Your task to perform on an android device: Open Youtube and go to "Your channel" Image 0: 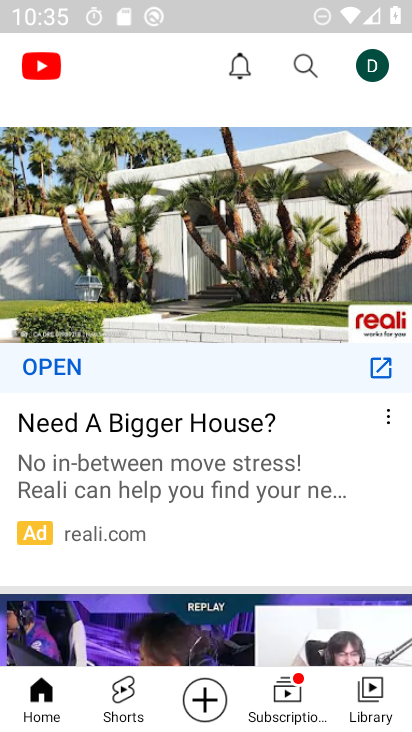
Step 0: drag from (293, 547) to (274, 242)
Your task to perform on an android device: Open Youtube and go to "Your channel" Image 1: 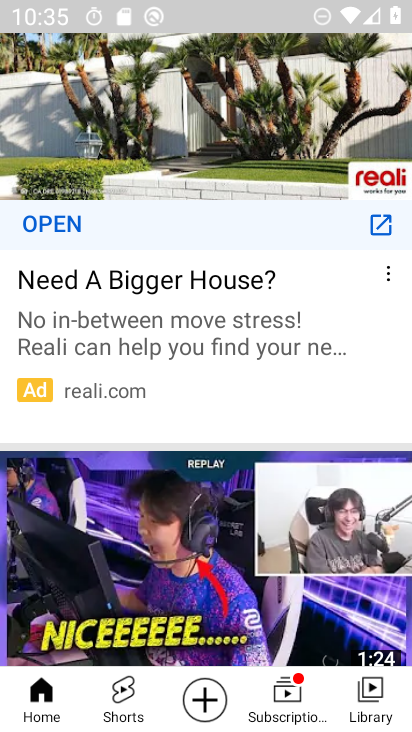
Step 1: drag from (309, 172) to (287, 449)
Your task to perform on an android device: Open Youtube and go to "Your channel" Image 2: 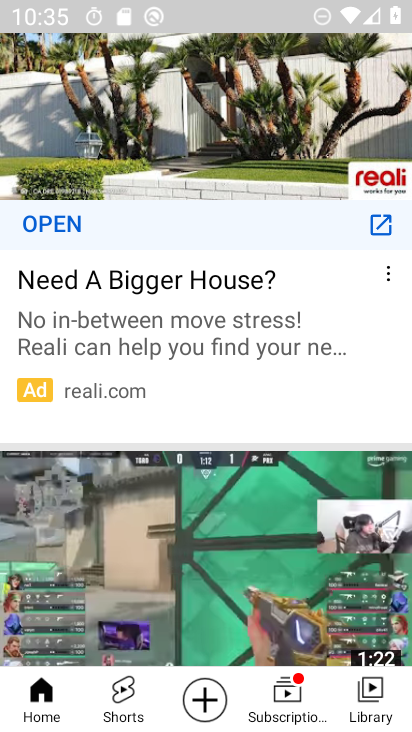
Step 2: drag from (256, 145) to (220, 501)
Your task to perform on an android device: Open Youtube and go to "Your channel" Image 3: 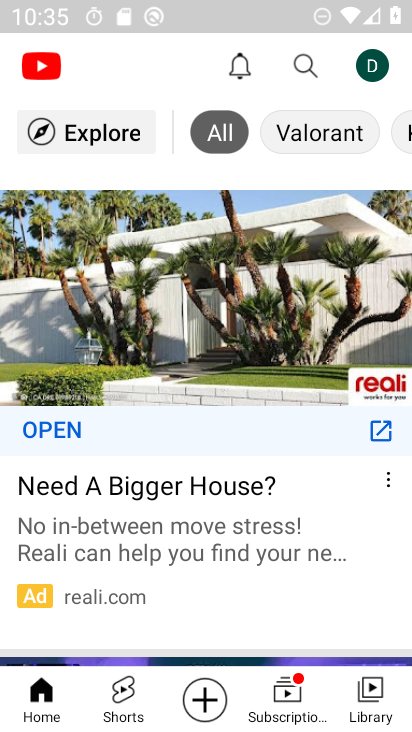
Step 3: click (379, 56)
Your task to perform on an android device: Open Youtube and go to "Your channel" Image 4: 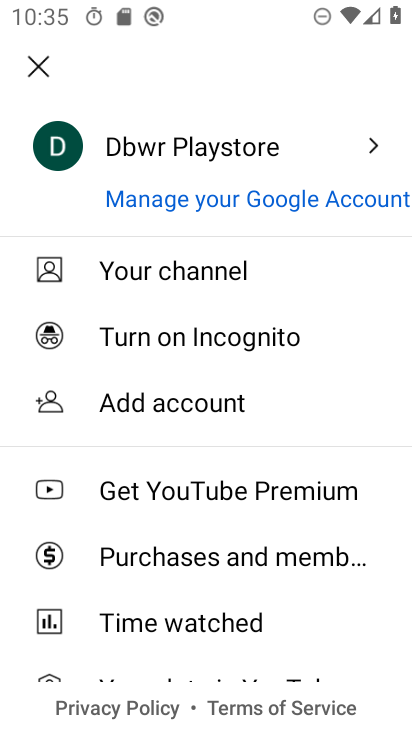
Step 4: drag from (219, 550) to (266, 193)
Your task to perform on an android device: Open Youtube and go to "Your channel" Image 5: 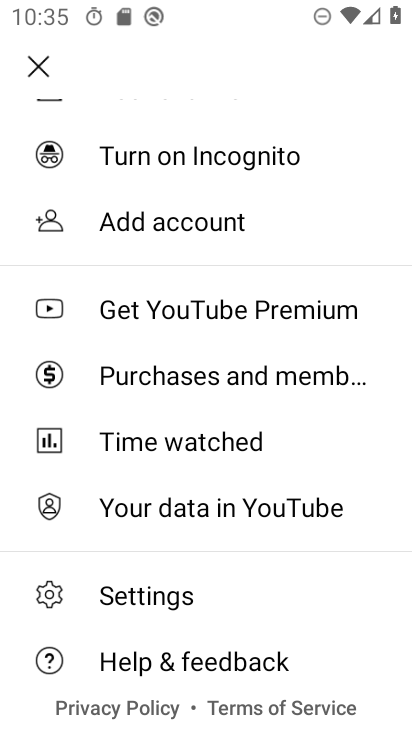
Step 5: drag from (209, 609) to (316, 174)
Your task to perform on an android device: Open Youtube and go to "Your channel" Image 6: 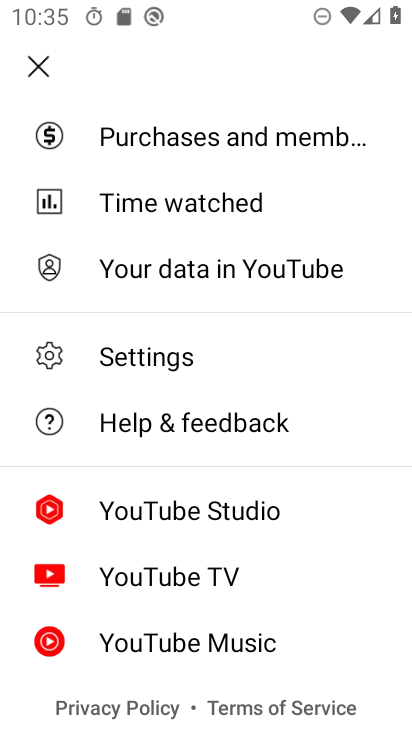
Step 6: drag from (224, 584) to (255, 171)
Your task to perform on an android device: Open Youtube and go to "Your channel" Image 7: 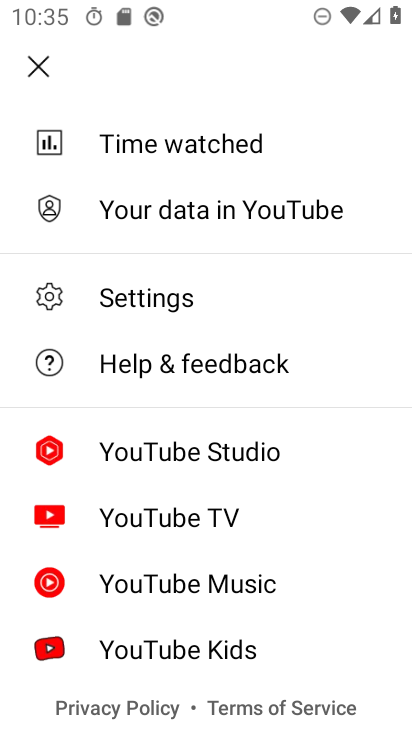
Step 7: drag from (181, 645) to (201, 267)
Your task to perform on an android device: Open Youtube and go to "Your channel" Image 8: 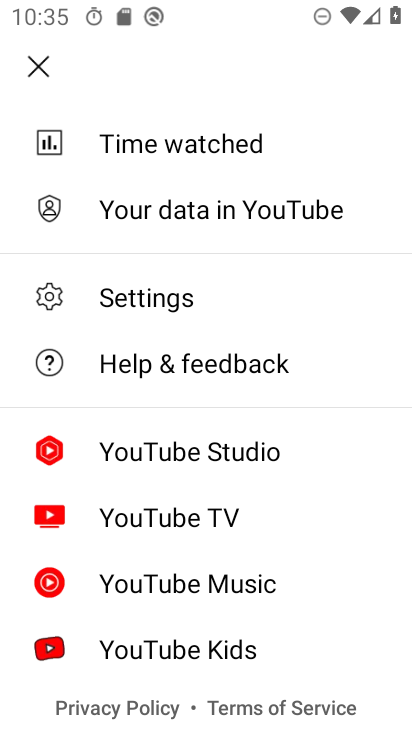
Step 8: drag from (213, 561) to (270, 344)
Your task to perform on an android device: Open Youtube and go to "Your channel" Image 9: 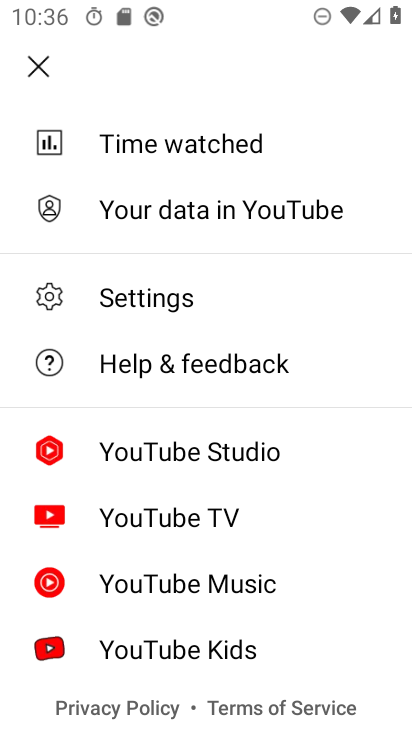
Step 9: drag from (276, 584) to (271, 249)
Your task to perform on an android device: Open Youtube and go to "Your channel" Image 10: 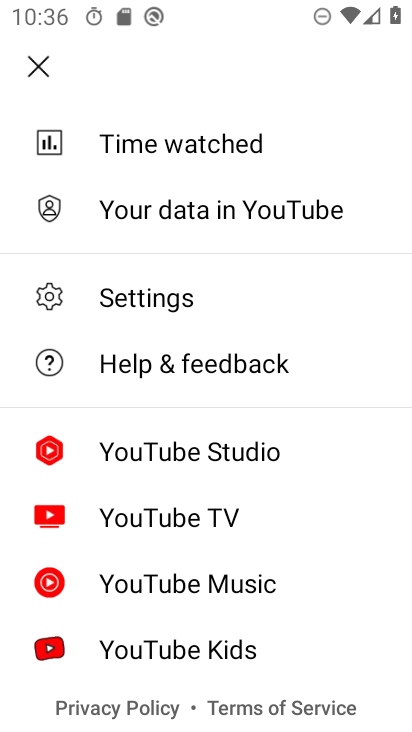
Step 10: drag from (202, 495) to (199, 331)
Your task to perform on an android device: Open Youtube and go to "Your channel" Image 11: 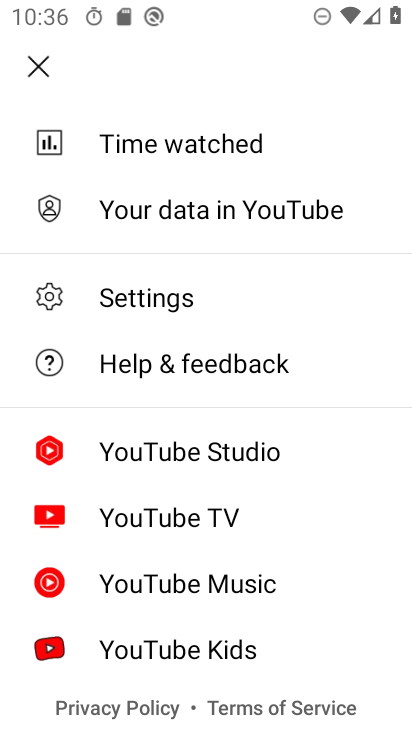
Step 11: drag from (236, 460) to (232, 80)
Your task to perform on an android device: Open Youtube and go to "Your channel" Image 12: 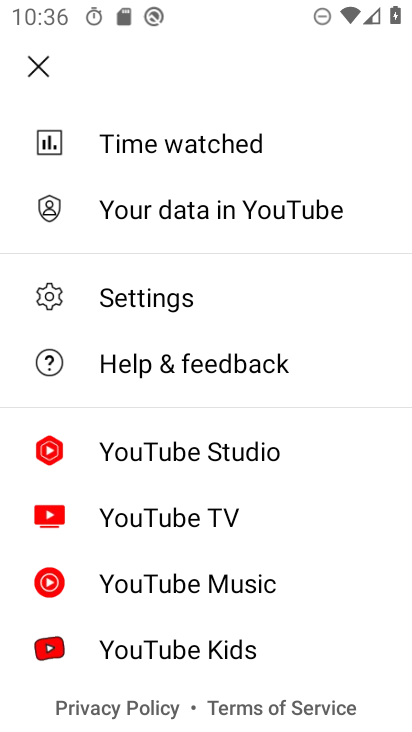
Step 12: drag from (230, 568) to (324, 216)
Your task to perform on an android device: Open Youtube and go to "Your channel" Image 13: 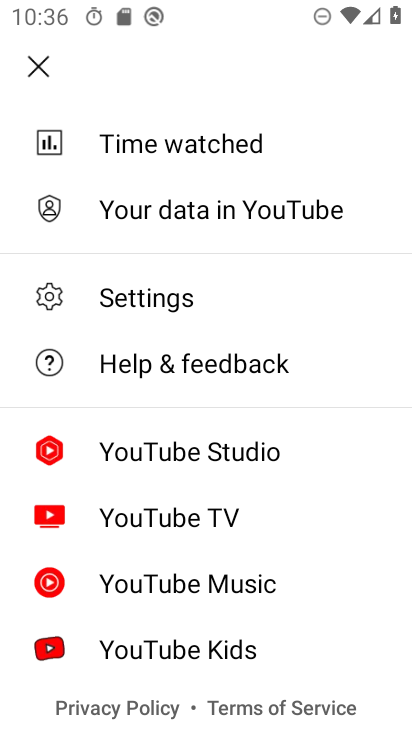
Step 13: drag from (219, 555) to (245, 252)
Your task to perform on an android device: Open Youtube and go to "Your channel" Image 14: 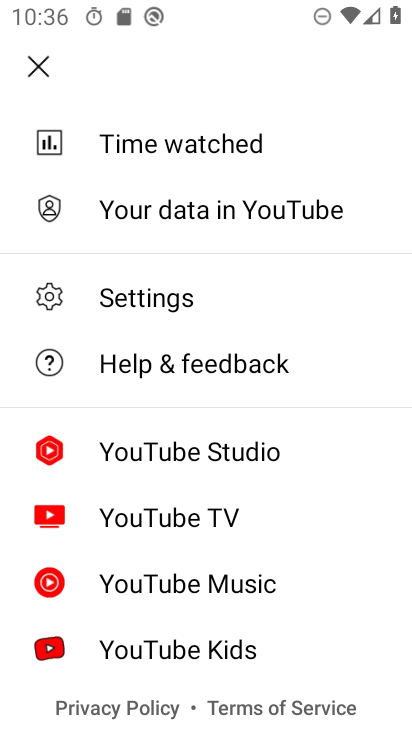
Step 14: drag from (245, 252) to (165, 588)
Your task to perform on an android device: Open Youtube and go to "Your channel" Image 15: 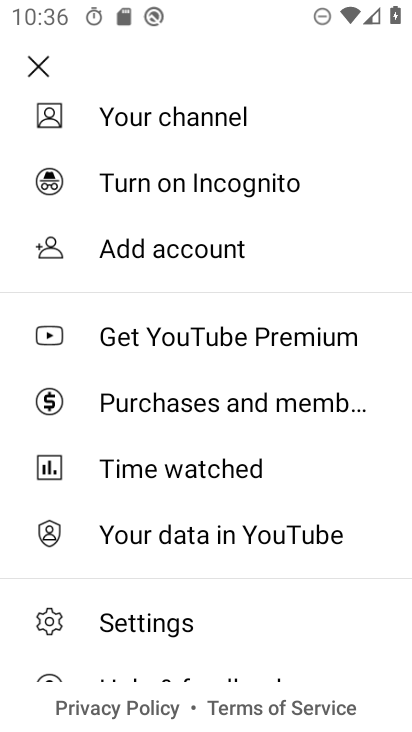
Step 15: click (175, 119)
Your task to perform on an android device: Open Youtube and go to "Your channel" Image 16: 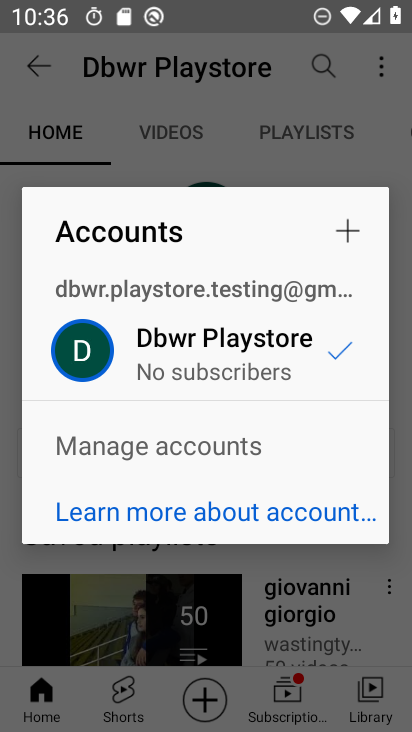
Step 16: task complete